Your task to perform on an android device: Open network settings Image 0: 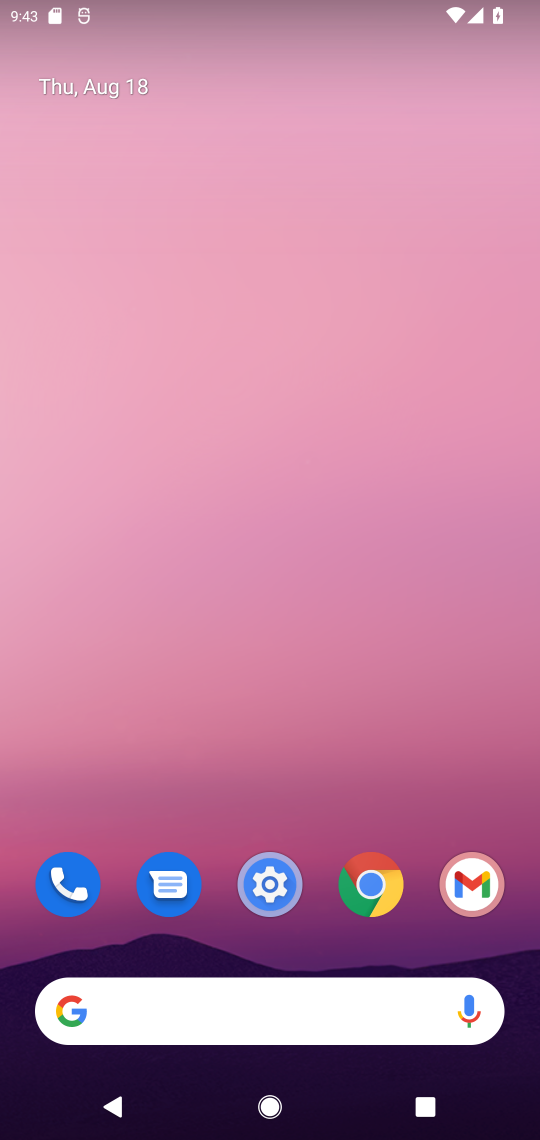
Step 0: drag from (175, 12) to (244, 772)
Your task to perform on an android device: Open network settings Image 1: 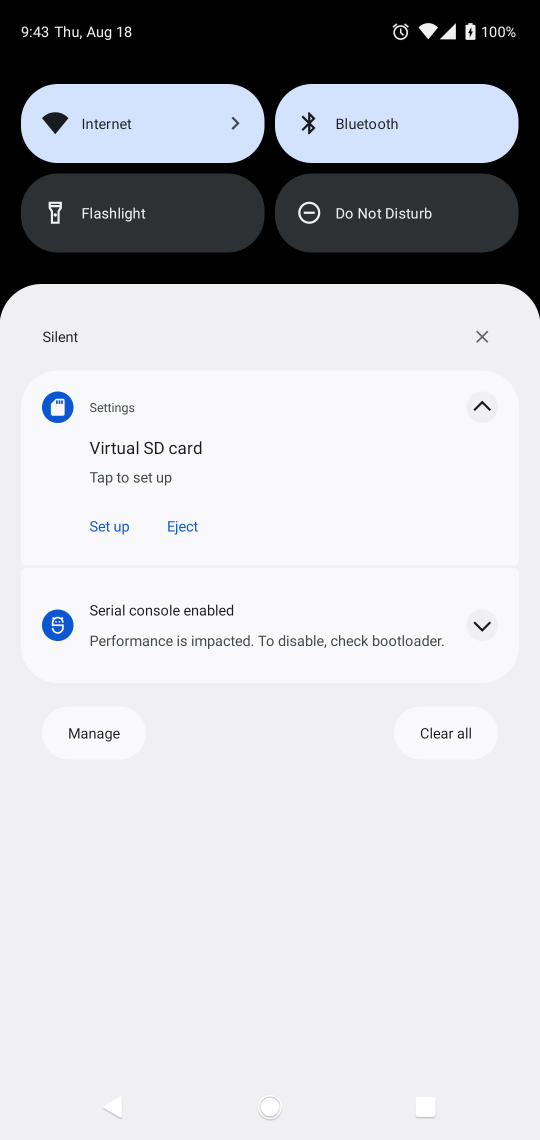
Step 1: click (229, 116)
Your task to perform on an android device: Open network settings Image 2: 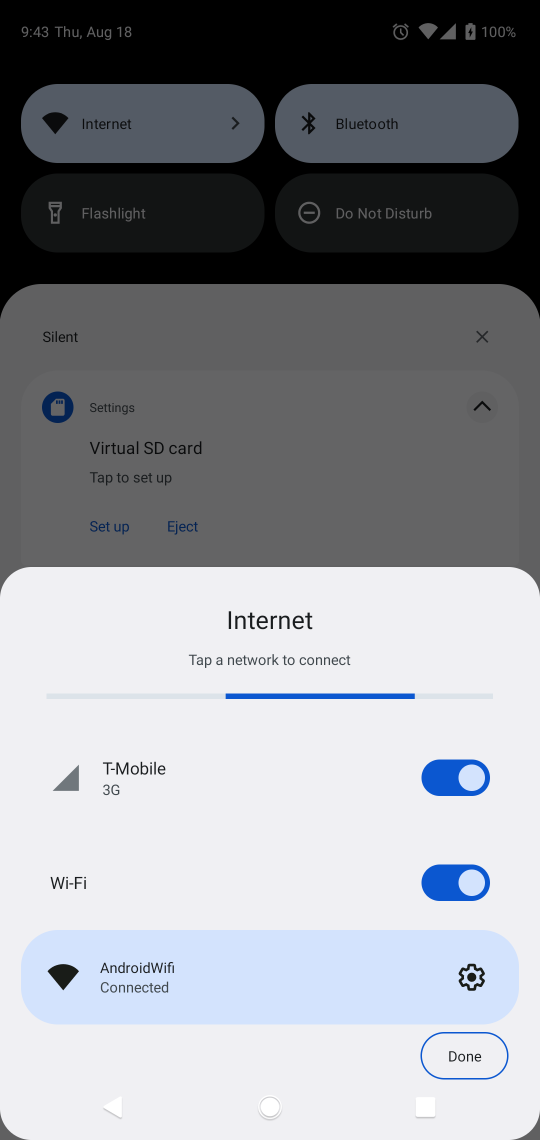
Step 2: click (472, 983)
Your task to perform on an android device: Open network settings Image 3: 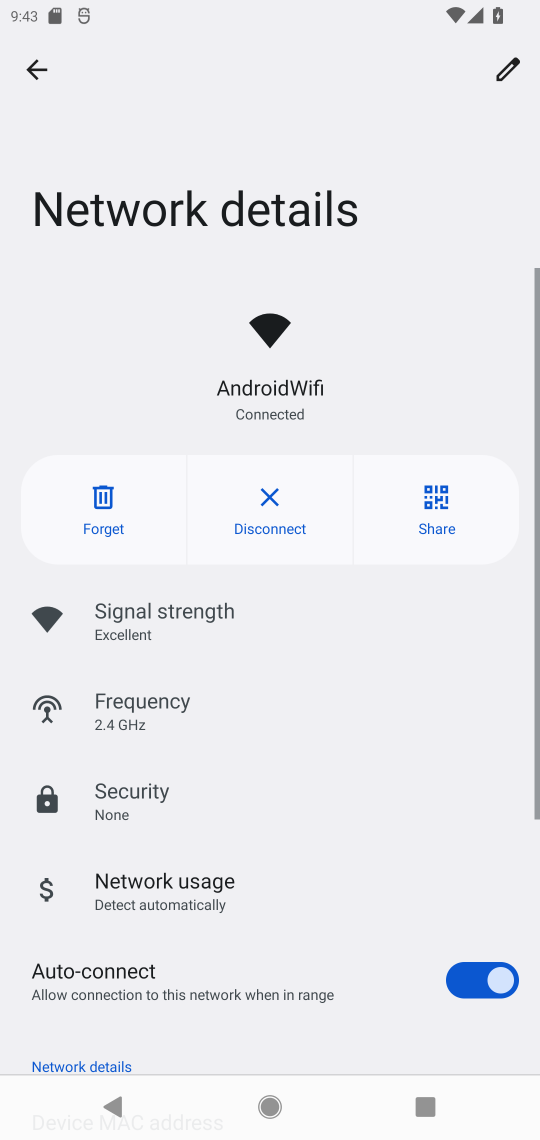
Step 3: task complete